Your task to perform on an android device: change text size in settings app Image 0: 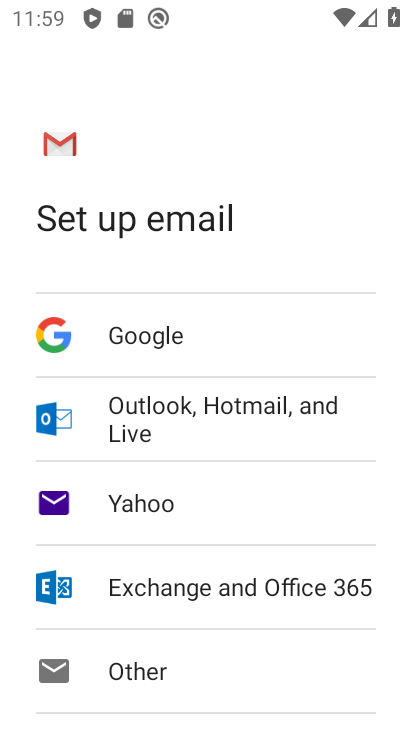
Step 0: press back button
Your task to perform on an android device: change text size in settings app Image 1: 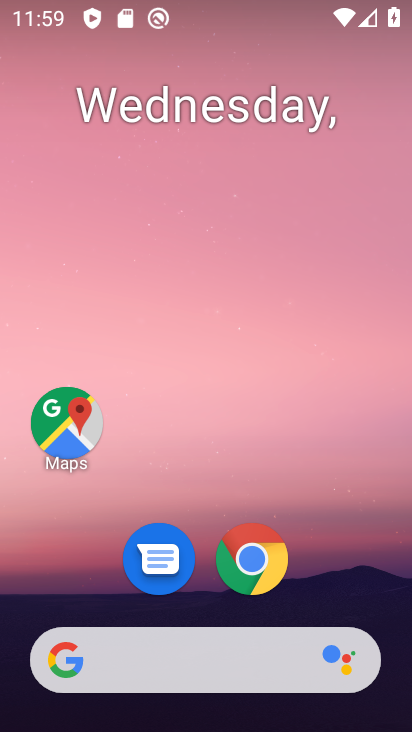
Step 1: drag from (260, 459) to (311, 11)
Your task to perform on an android device: change text size in settings app Image 2: 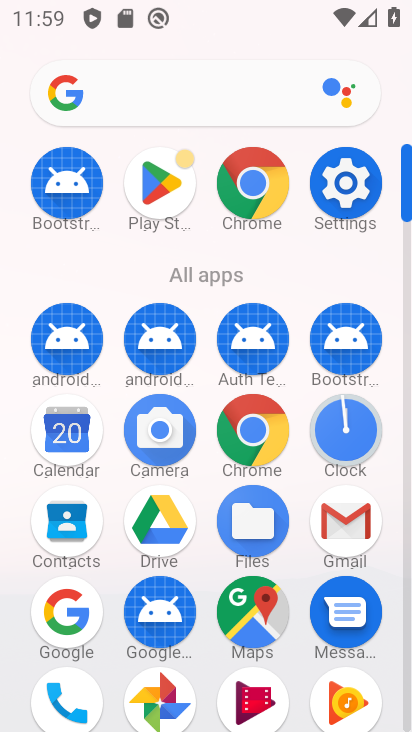
Step 2: click (339, 189)
Your task to perform on an android device: change text size in settings app Image 3: 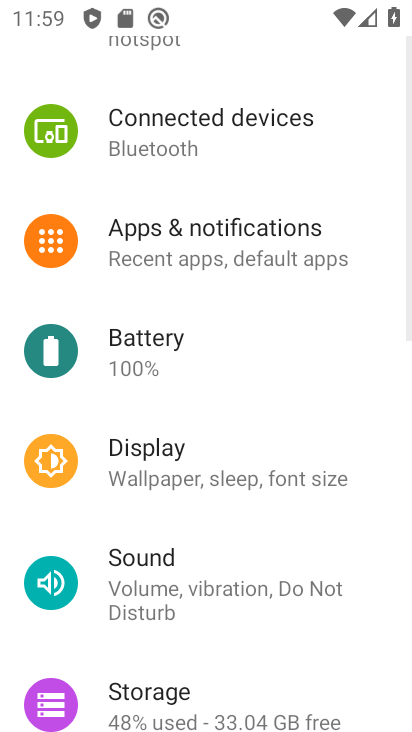
Step 3: drag from (240, 140) to (230, 657)
Your task to perform on an android device: change text size in settings app Image 4: 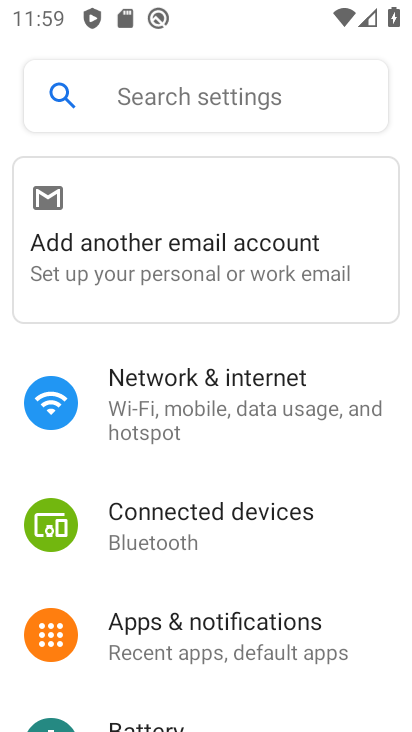
Step 4: click (151, 97)
Your task to perform on an android device: change text size in settings app Image 5: 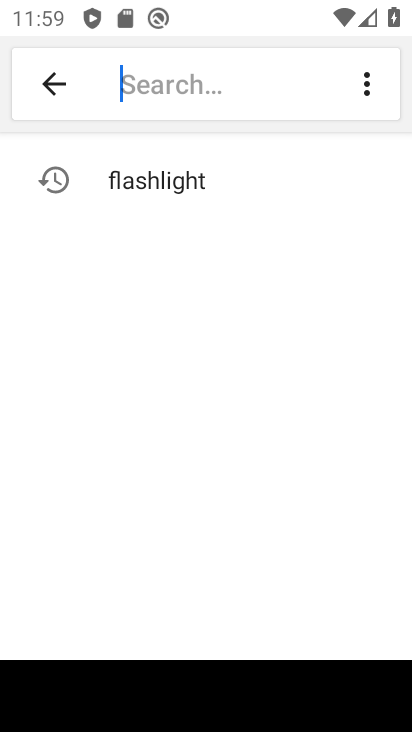
Step 5: type "text size"
Your task to perform on an android device: change text size in settings app Image 6: 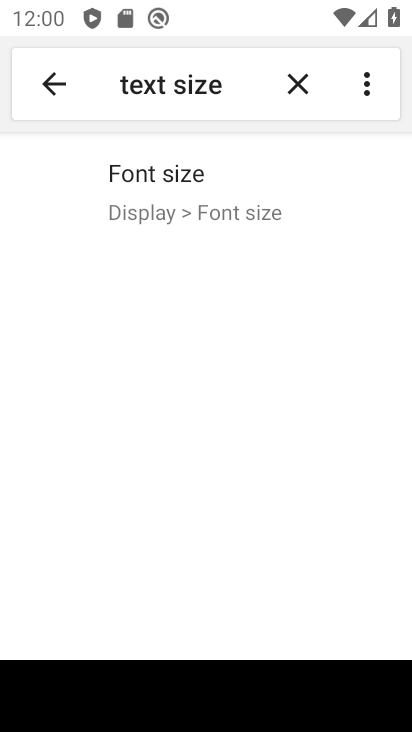
Step 6: click (204, 184)
Your task to perform on an android device: change text size in settings app Image 7: 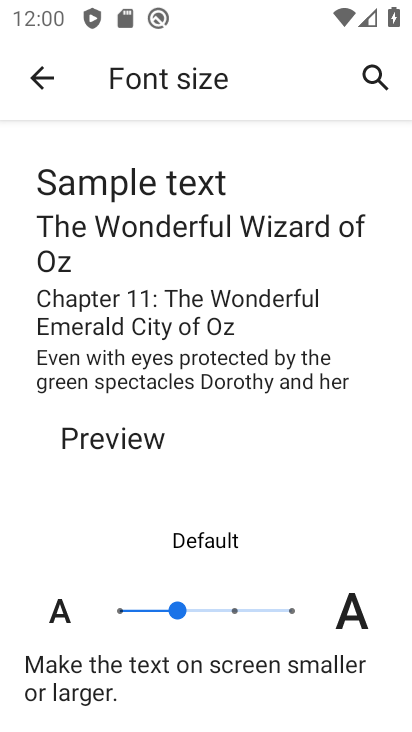
Step 7: task complete